Your task to perform on an android device: clear history in the chrome app Image 0: 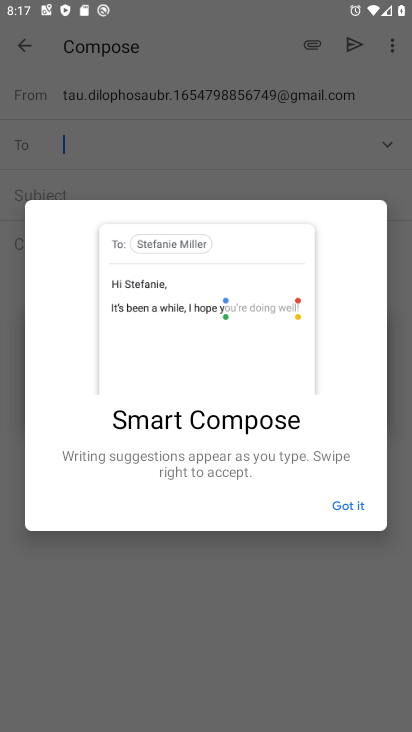
Step 0: press home button
Your task to perform on an android device: clear history in the chrome app Image 1: 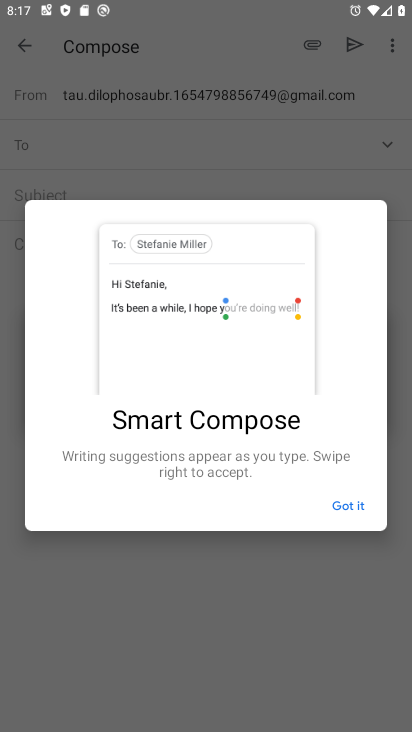
Step 1: press home button
Your task to perform on an android device: clear history in the chrome app Image 2: 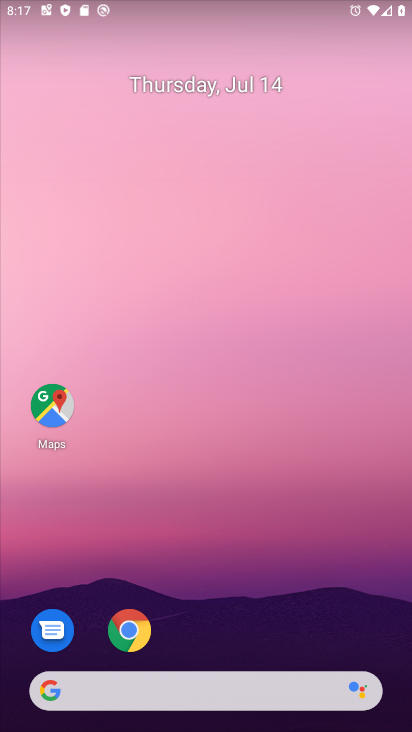
Step 2: drag from (225, 717) to (232, 218)
Your task to perform on an android device: clear history in the chrome app Image 3: 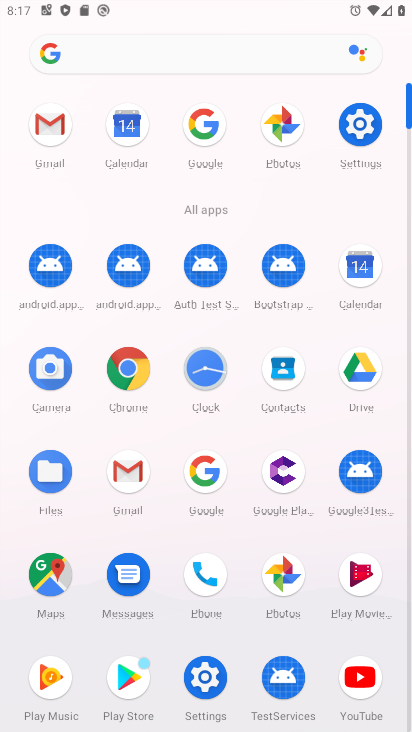
Step 3: click (125, 363)
Your task to perform on an android device: clear history in the chrome app Image 4: 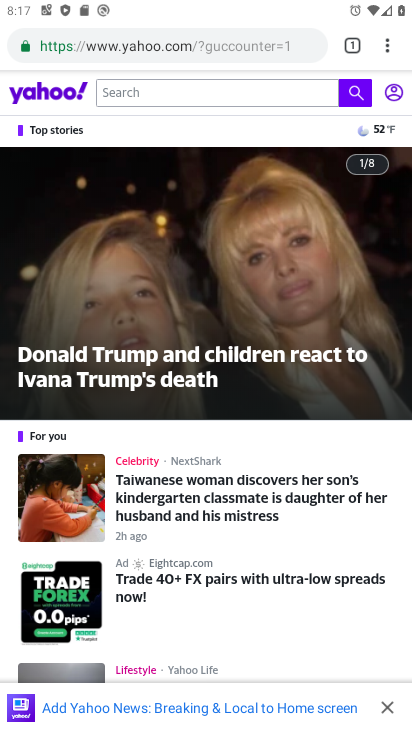
Step 4: click (388, 43)
Your task to perform on an android device: clear history in the chrome app Image 5: 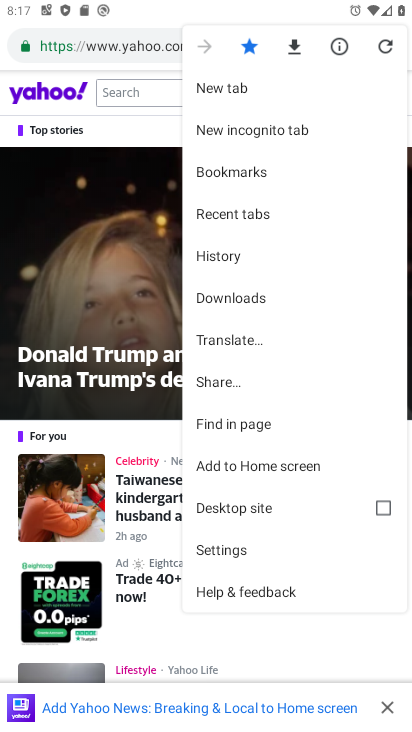
Step 5: click (227, 255)
Your task to perform on an android device: clear history in the chrome app Image 6: 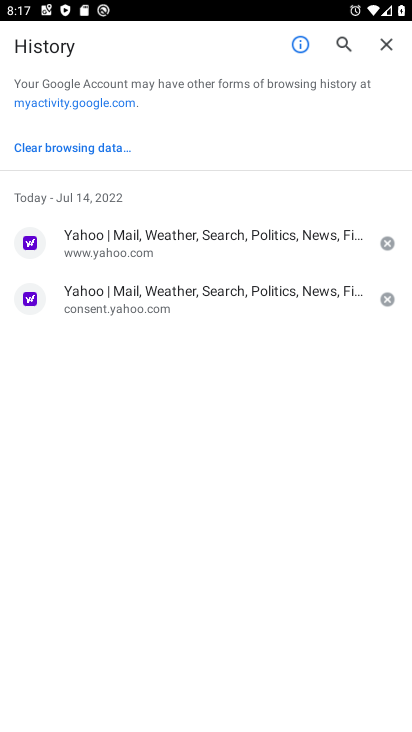
Step 6: click (94, 148)
Your task to perform on an android device: clear history in the chrome app Image 7: 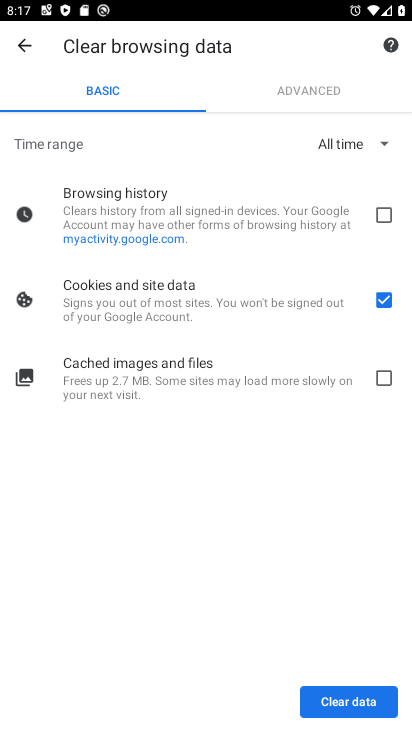
Step 7: click (381, 215)
Your task to perform on an android device: clear history in the chrome app Image 8: 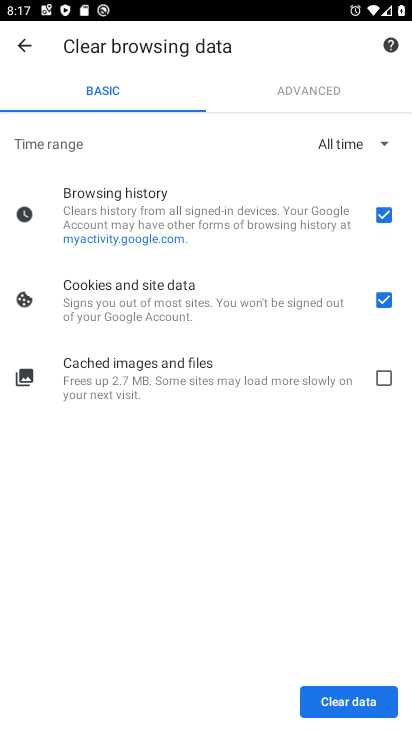
Step 8: click (384, 300)
Your task to perform on an android device: clear history in the chrome app Image 9: 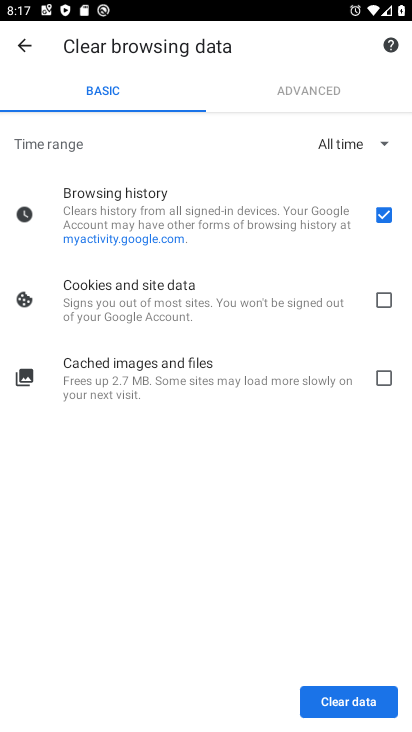
Step 9: click (352, 696)
Your task to perform on an android device: clear history in the chrome app Image 10: 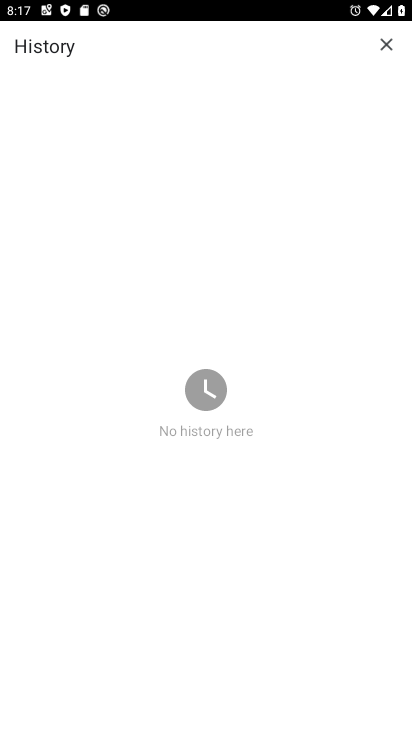
Step 10: task complete